Your task to perform on an android device: What's the weather? Image 0: 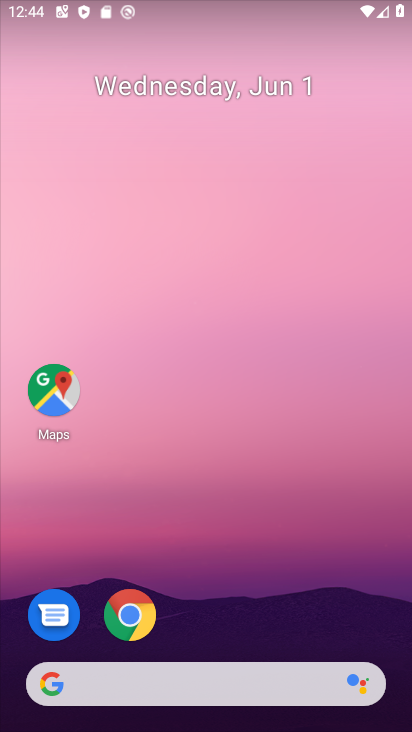
Step 0: task complete